Your task to perform on an android device: turn on improve location accuracy Image 0: 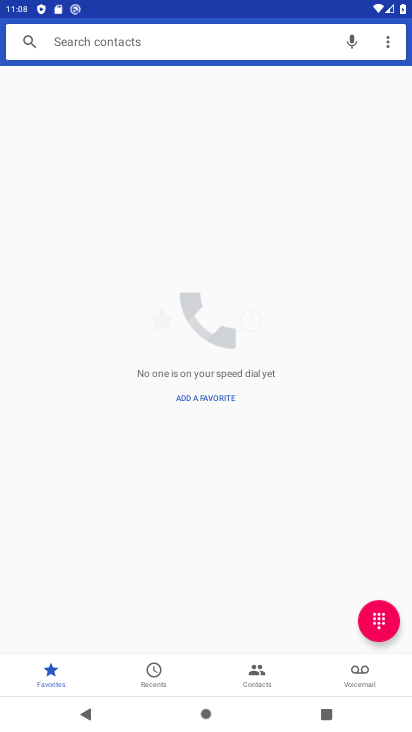
Step 0: press home button
Your task to perform on an android device: turn on improve location accuracy Image 1: 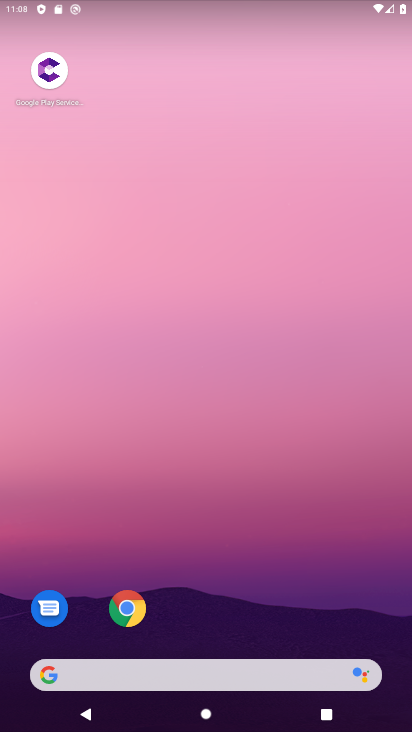
Step 1: drag from (235, 643) to (188, 141)
Your task to perform on an android device: turn on improve location accuracy Image 2: 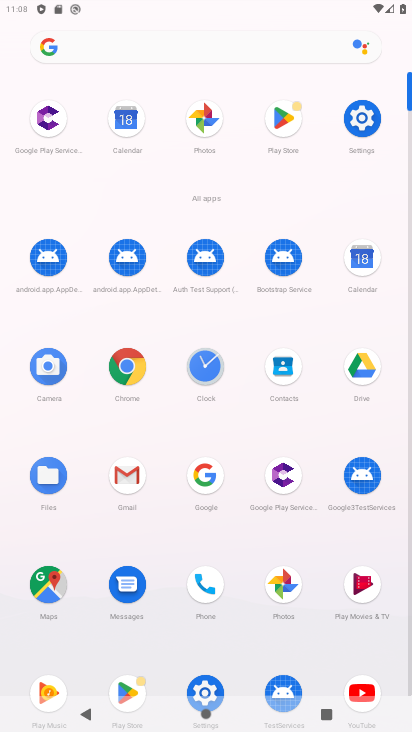
Step 2: click (363, 137)
Your task to perform on an android device: turn on improve location accuracy Image 3: 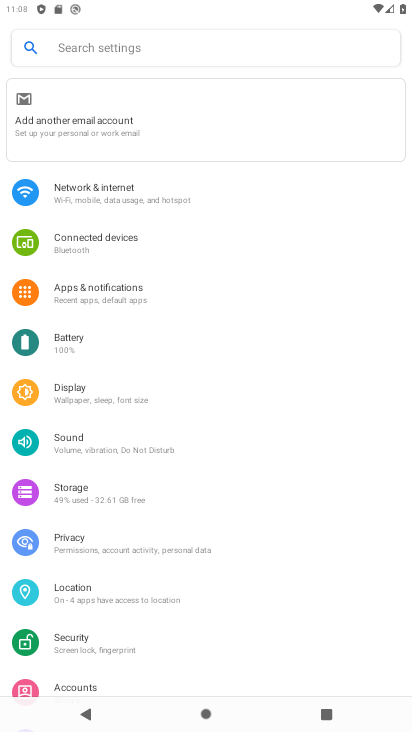
Step 3: click (147, 599)
Your task to perform on an android device: turn on improve location accuracy Image 4: 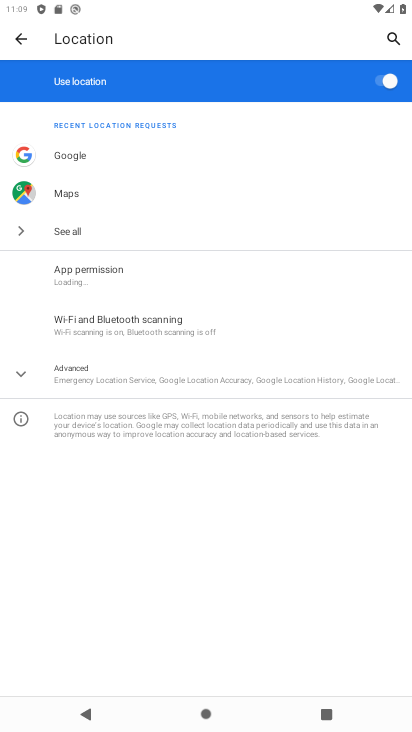
Step 4: click (270, 383)
Your task to perform on an android device: turn on improve location accuracy Image 5: 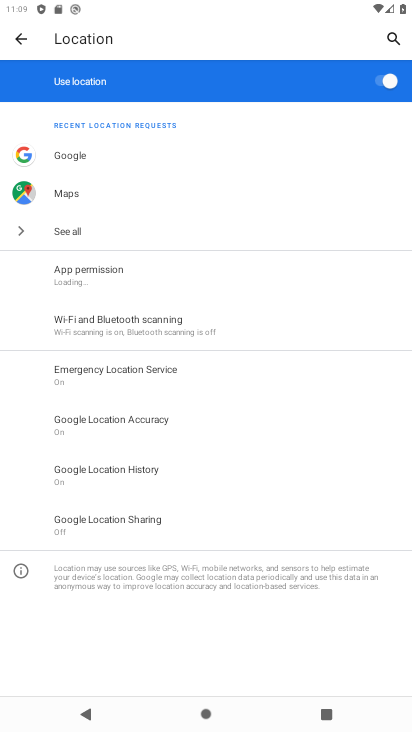
Step 5: click (211, 418)
Your task to perform on an android device: turn on improve location accuracy Image 6: 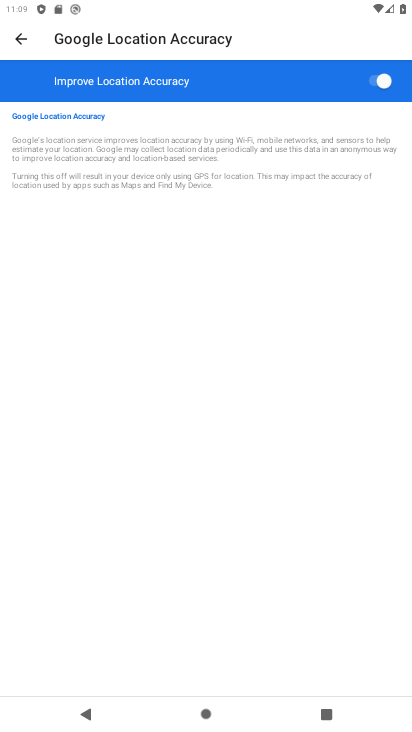
Step 6: task complete